Your task to perform on an android device: turn off location Image 0: 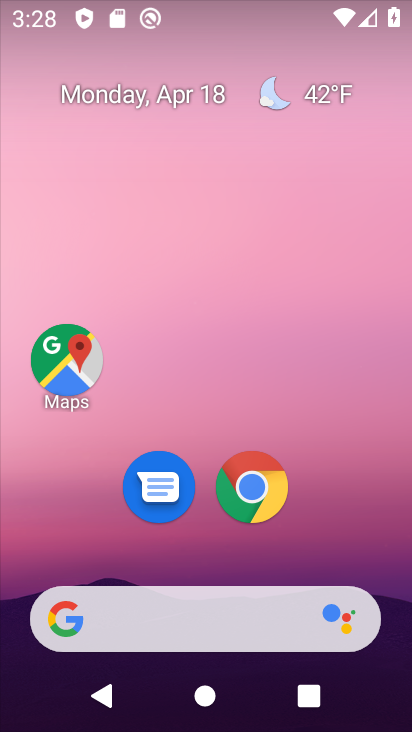
Step 0: drag from (221, 531) to (251, 95)
Your task to perform on an android device: turn off location Image 1: 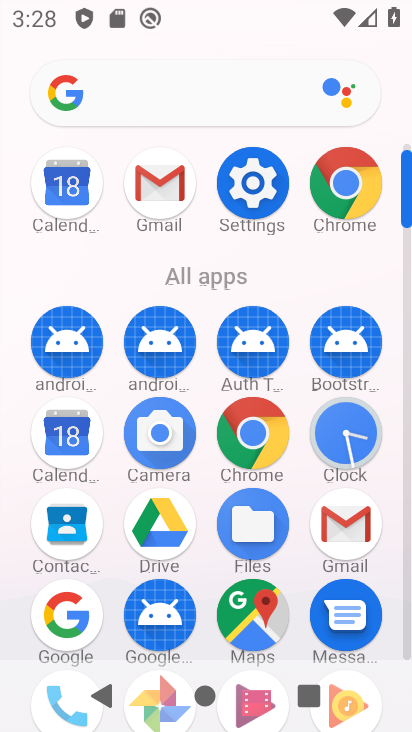
Step 1: click (252, 203)
Your task to perform on an android device: turn off location Image 2: 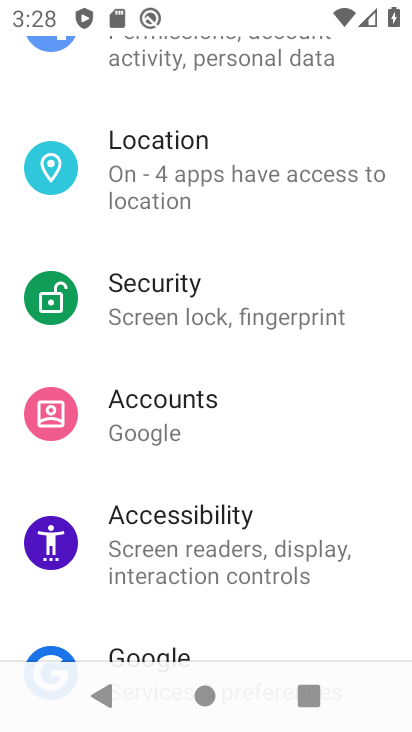
Step 2: click (247, 183)
Your task to perform on an android device: turn off location Image 3: 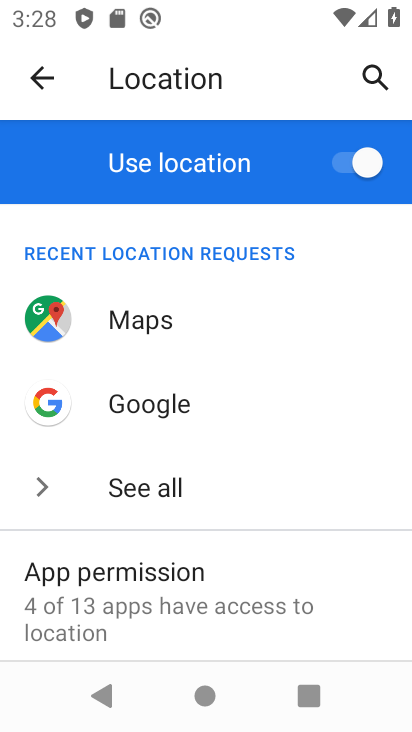
Step 3: drag from (254, 545) to (247, 623)
Your task to perform on an android device: turn off location Image 4: 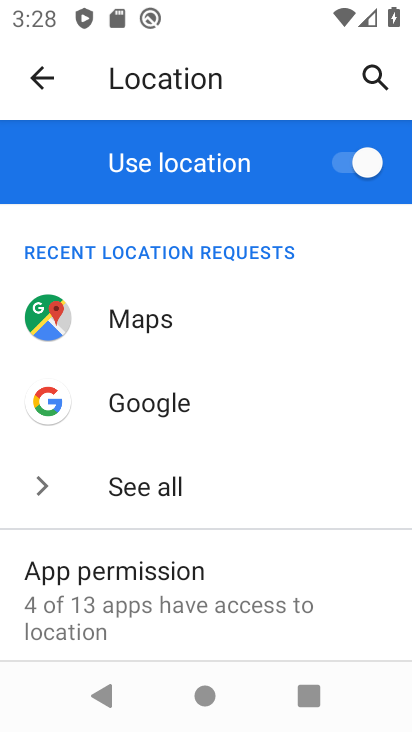
Step 4: click (351, 162)
Your task to perform on an android device: turn off location Image 5: 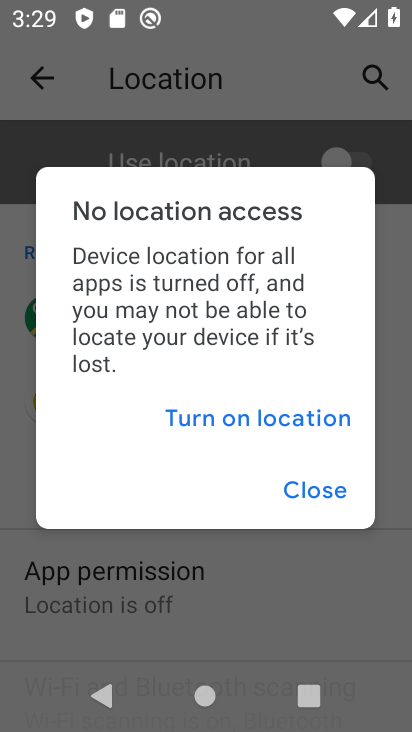
Step 5: task complete